Your task to perform on an android device: Open maps Image 0: 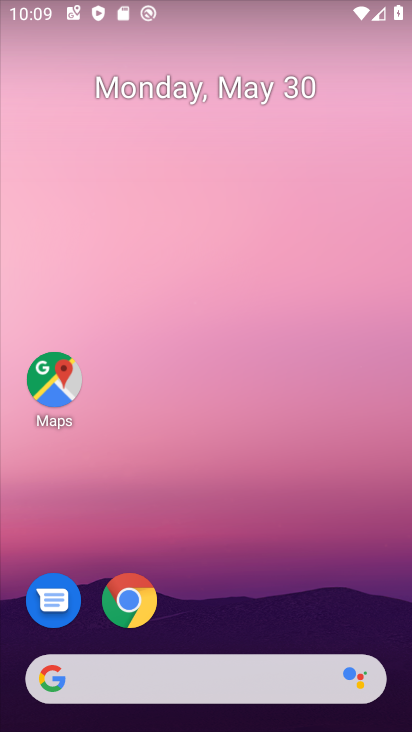
Step 0: click (70, 404)
Your task to perform on an android device: Open maps Image 1: 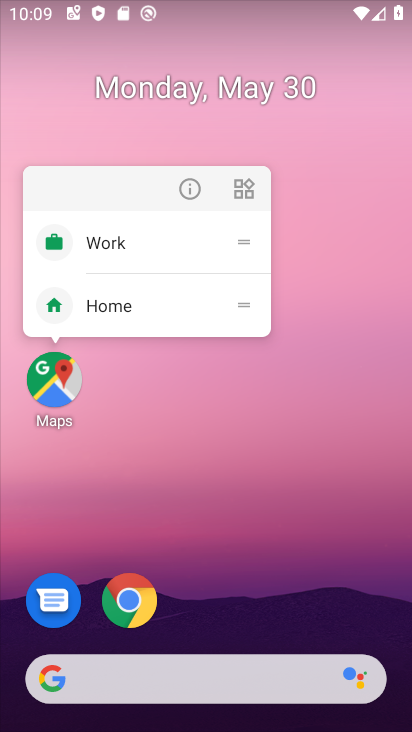
Step 1: click (67, 400)
Your task to perform on an android device: Open maps Image 2: 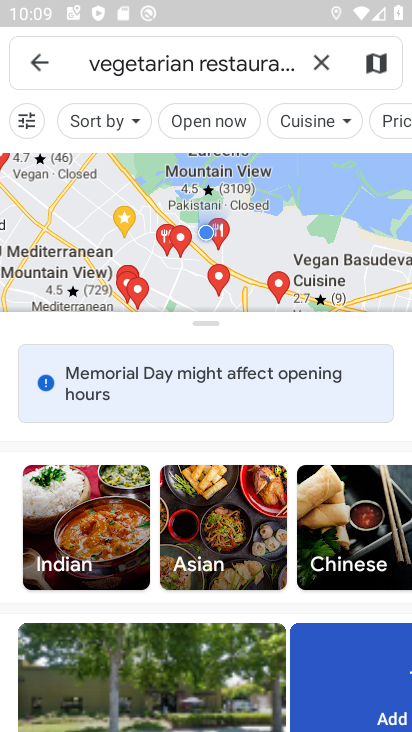
Step 2: click (49, 67)
Your task to perform on an android device: Open maps Image 3: 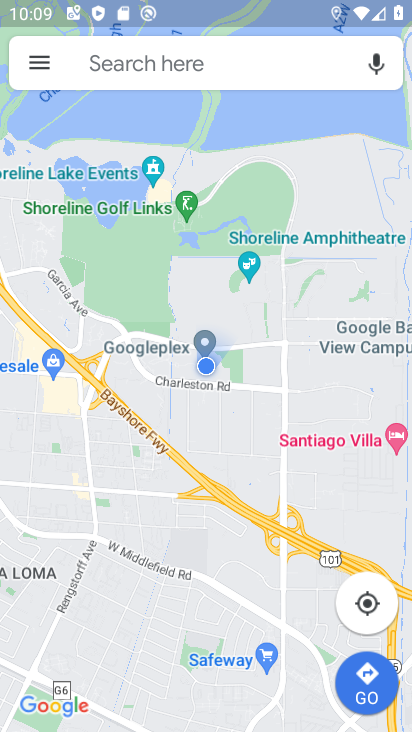
Step 3: task complete